Your task to perform on an android device: Is it going to rain this weekend? Image 0: 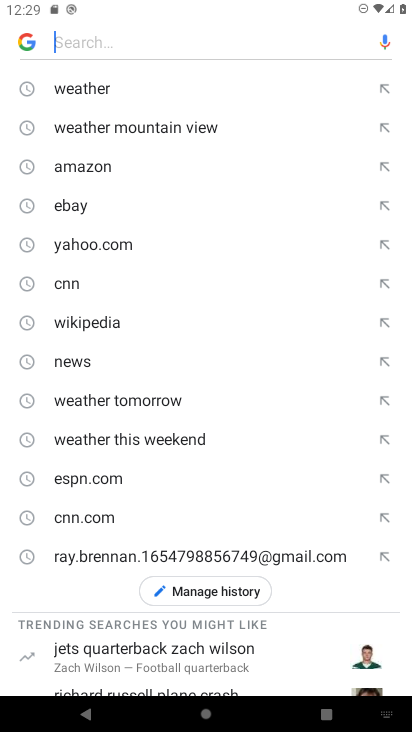
Step 0: press back button
Your task to perform on an android device: Is it going to rain this weekend? Image 1: 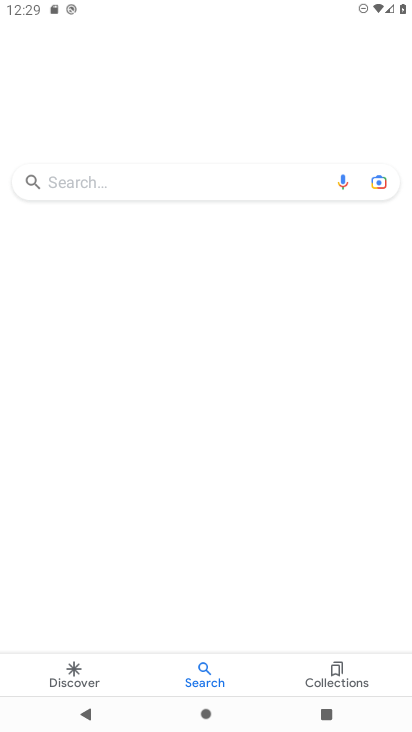
Step 1: press back button
Your task to perform on an android device: Is it going to rain this weekend? Image 2: 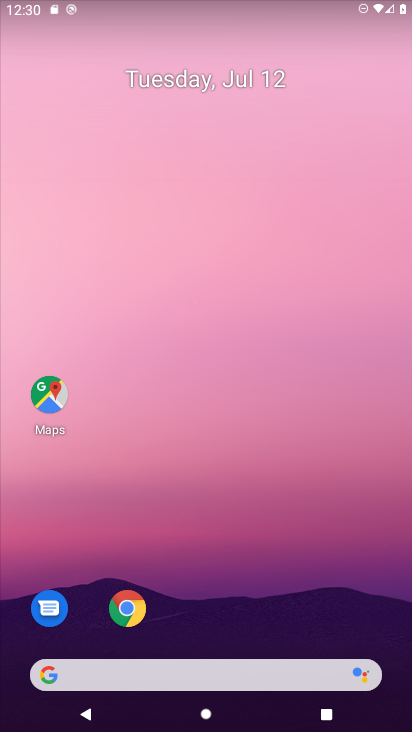
Step 2: click (203, 673)
Your task to perform on an android device: Is it going to rain this weekend? Image 3: 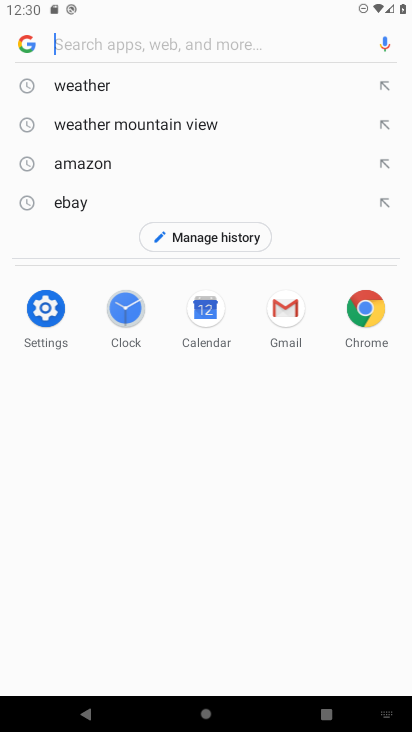
Step 3: click (81, 87)
Your task to perform on an android device: Is it going to rain this weekend? Image 4: 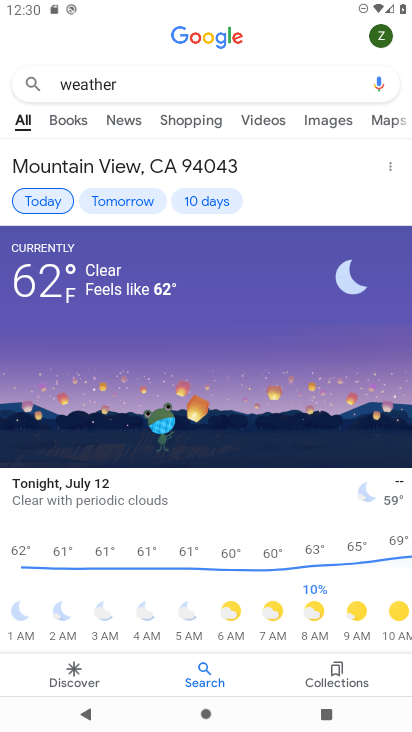
Step 4: click (202, 207)
Your task to perform on an android device: Is it going to rain this weekend? Image 5: 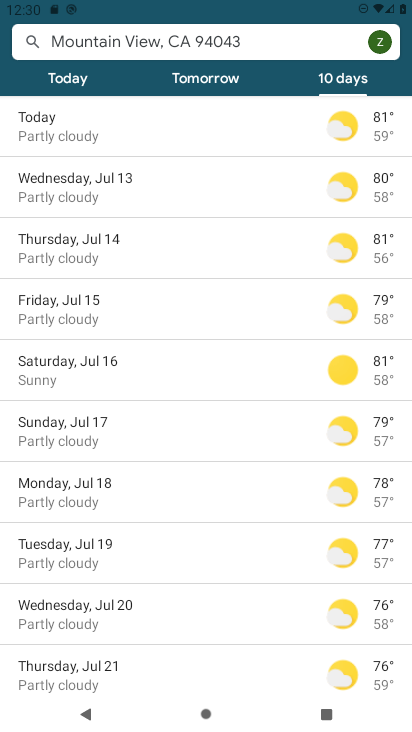
Step 5: task complete